Your task to perform on an android device: Turn on the flashlight Image 0: 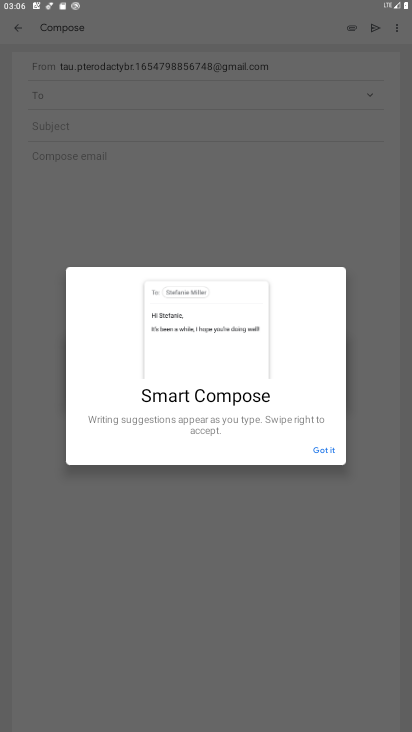
Step 0: press home button
Your task to perform on an android device: Turn on the flashlight Image 1: 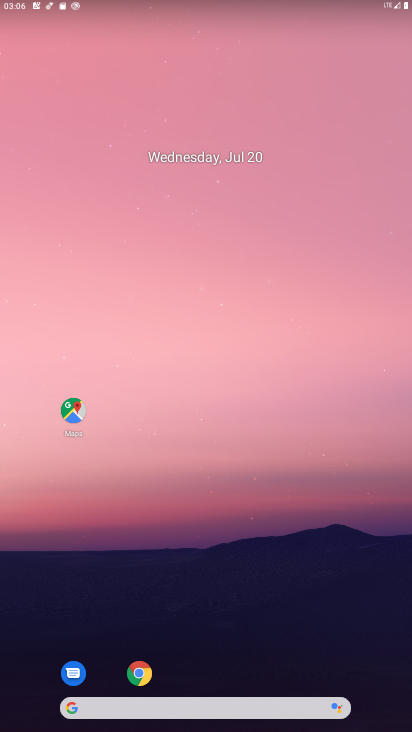
Step 1: drag from (212, 654) to (217, 95)
Your task to perform on an android device: Turn on the flashlight Image 2: 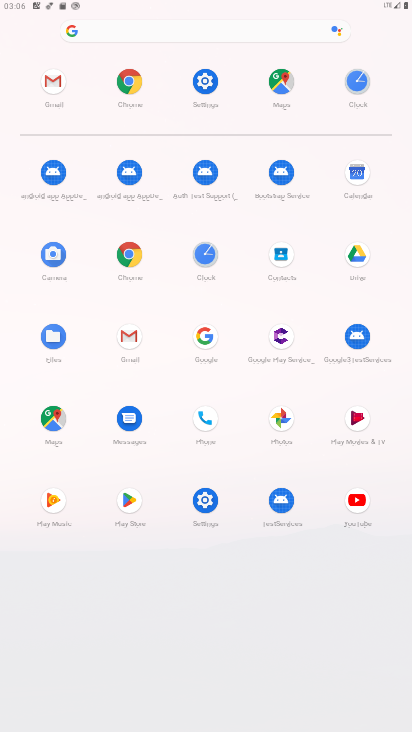
Step 2: click (204, 510)
Your task to perform on an android device: Turn on the flashlight Image 3: 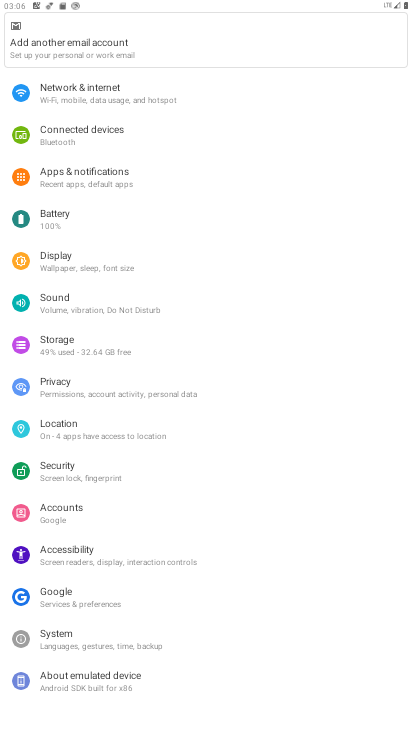
Step 3: drag from (158, 34) to (164, 515)
Your task to perform on an android device: Turn on the flashlight Image 4: 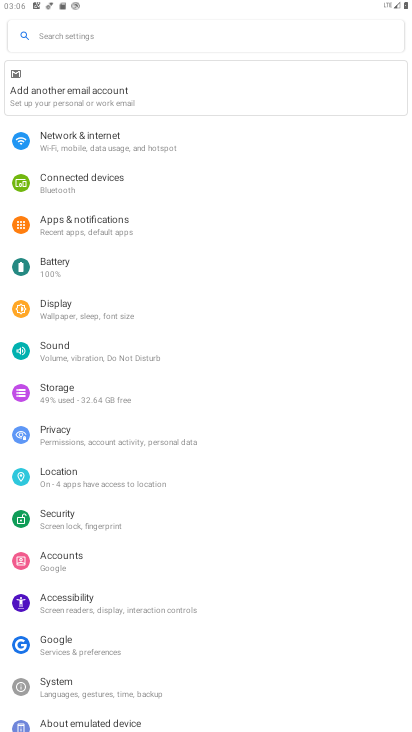
Step 4: click (141, 30)
Your task to perform on an android device: Turn on the flashlight Image 5: 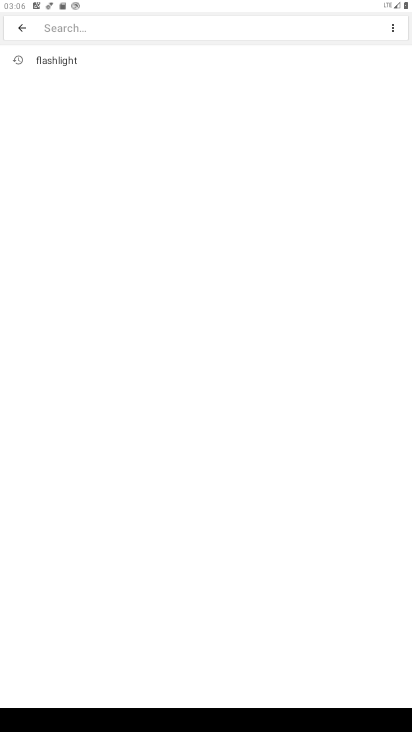
Step 5: type "flashlight"
Your task to perform on an android device: Turn on the flashlight Image 6: 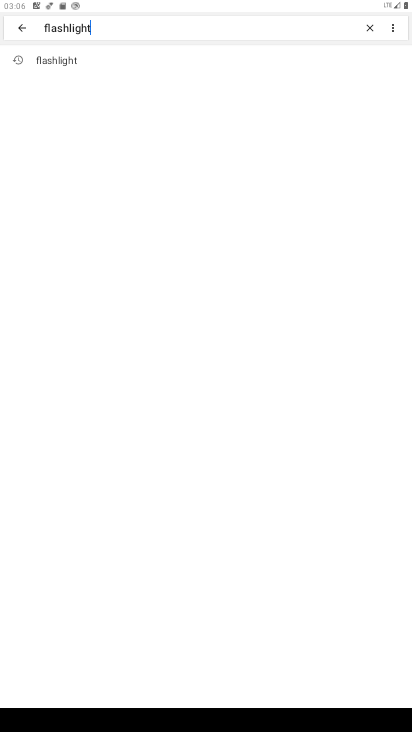
Step 6: click (63, 66)
Your task to perform on an android device: Turn on the flashlight Image 7: 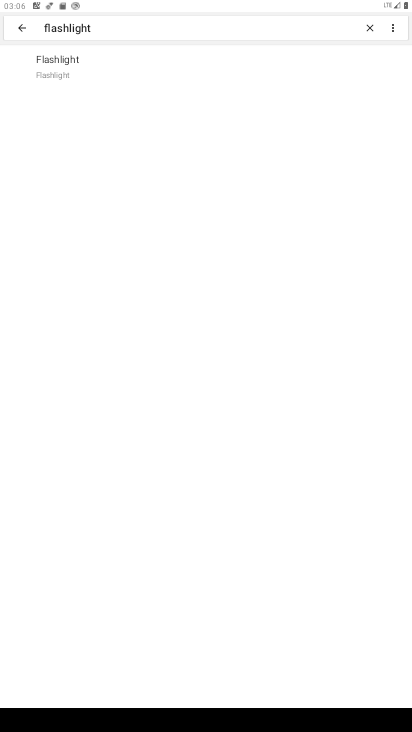
Step 7: click (65, 69)
Your task to perform on an android device: Turn on the flashlight Image 8: 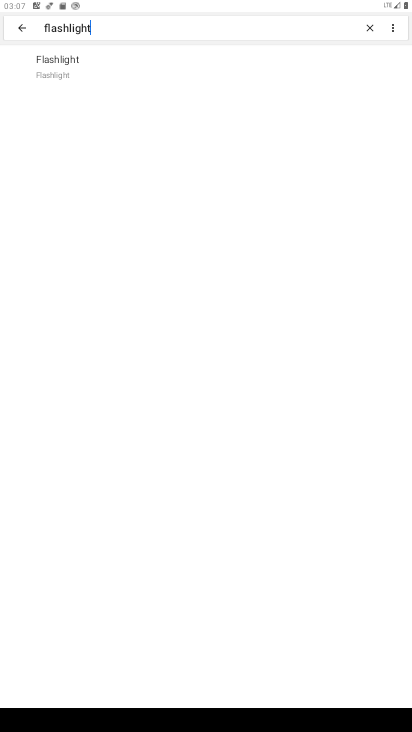
Step 8: click (52, 71)
Your task to perform on an android device: Turn on the flashlight Image 9: 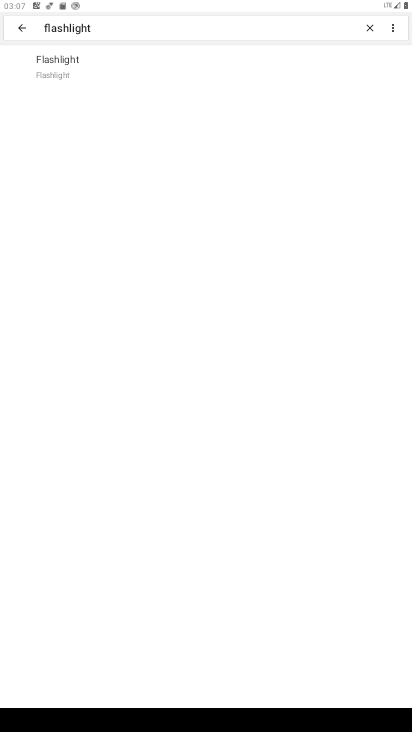
Step 9: task complete